Your task to perform on an android device: Open ESPN.com Image 0: 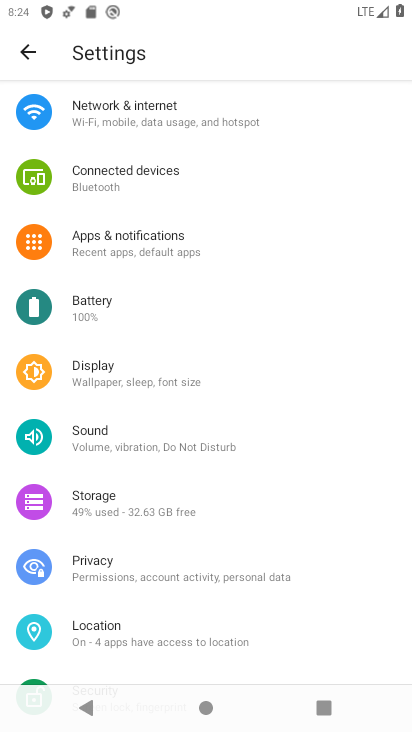
Step 0: press back button
Your task to perform on an android device: Open ESPN.com Image 1: 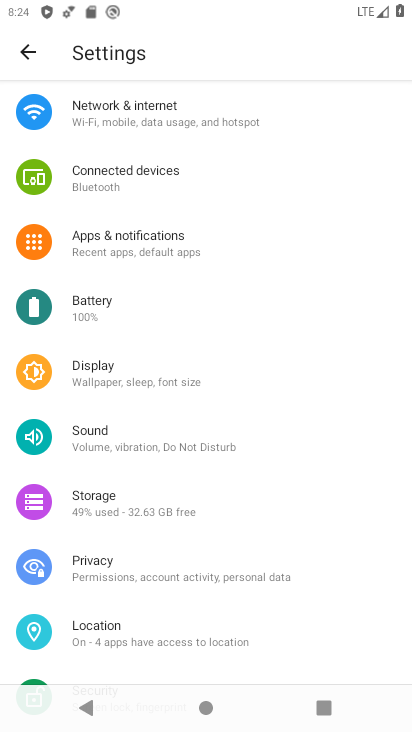
Step 1: press back button
Your task to perform on an android device: Open ESPN.com Image 2: 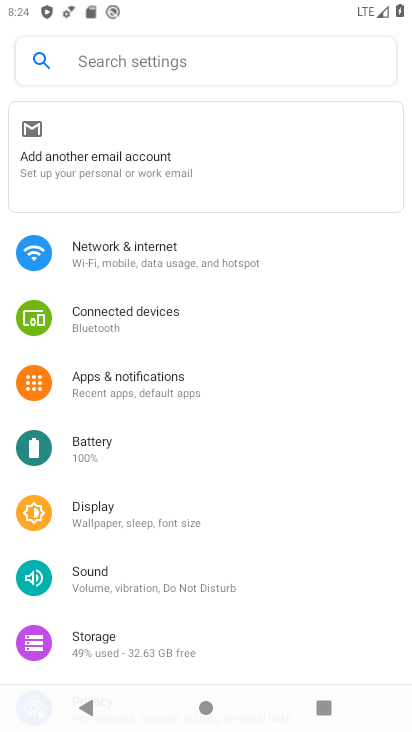
Step 2: press home button
Your task to perform on an android device: Open ESPN.com Image 3: 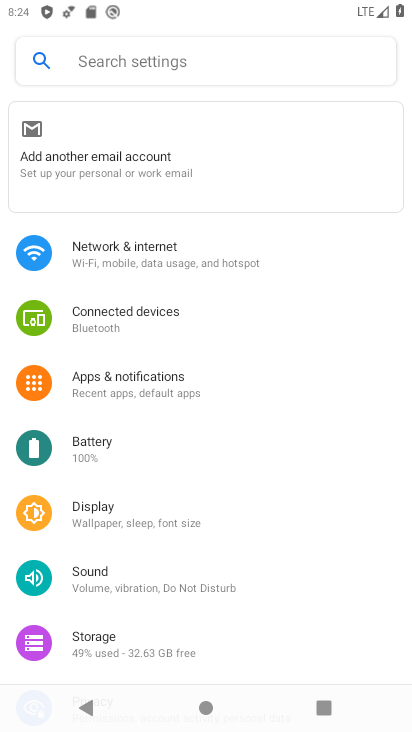
Step 3: press home button
Your task to perform on an android device: Open ESPN.com Image 4: 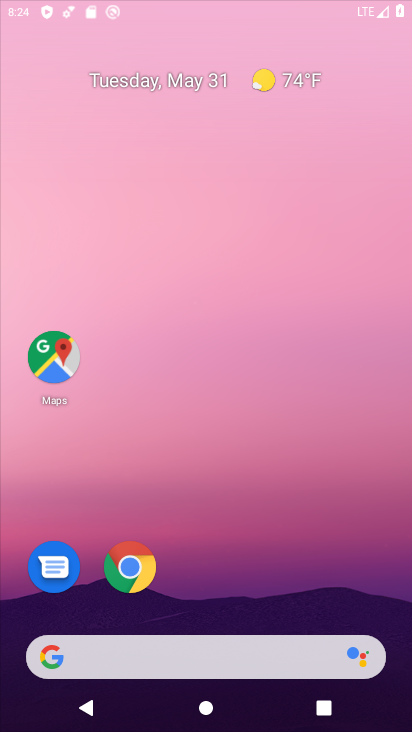
Step 4: press home button
Your task to perform on an android device: Open ESPN.com Image 5: 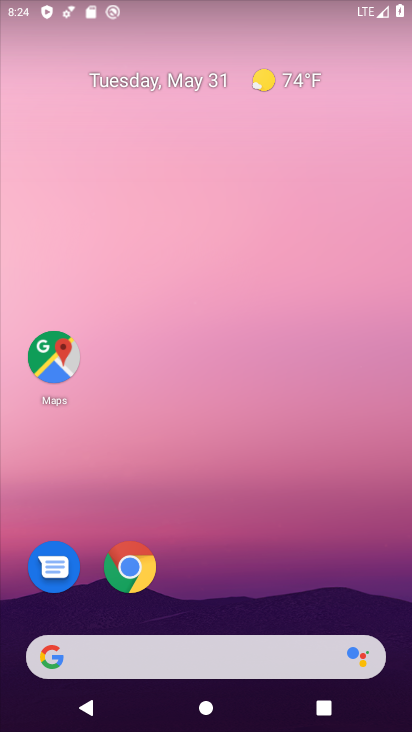
Step 5: drag from (272, 698) to (227, 55)
Your task to perform on an android device: Open ESPN.com Image 6: 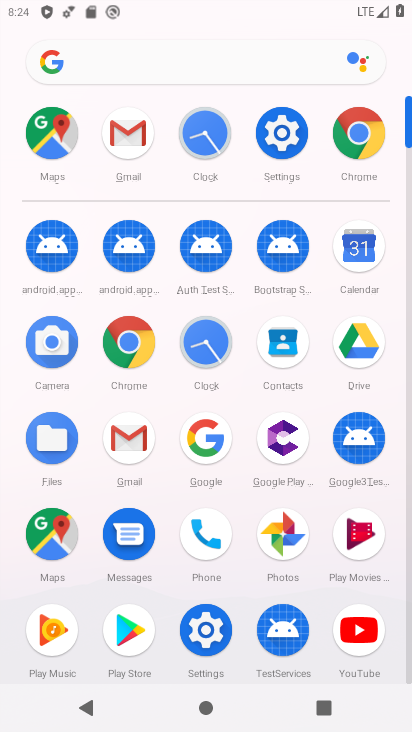
Step 6: click (357, 135)
Your task to perform on an android device: Open ESPN.com Image 7: 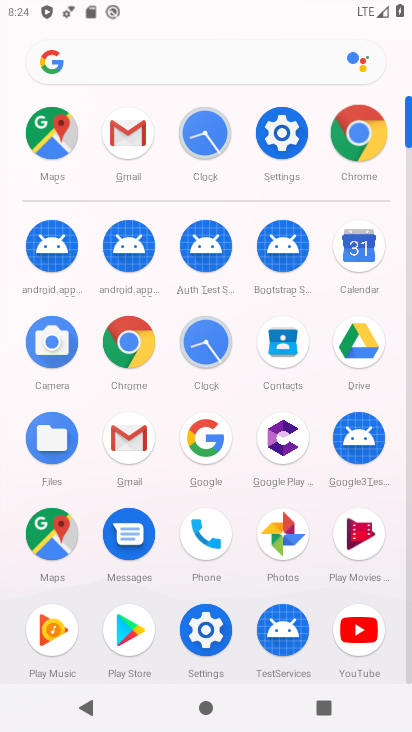
Step 7: click (358, 134)
Your task to perform on an android device: Open ESPN.com Image 8: 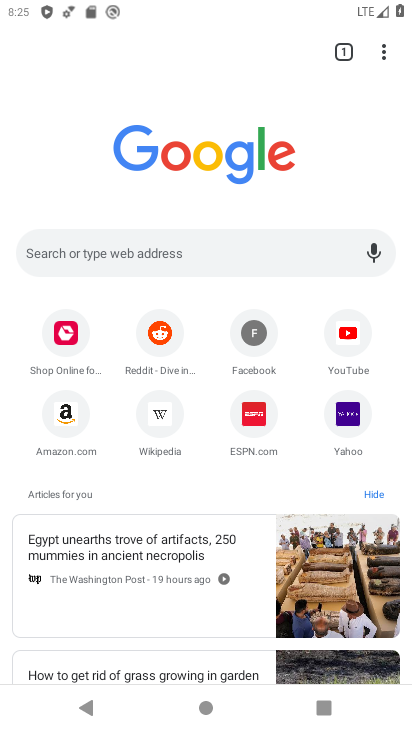
Step 8: click (260, 414)
Your task to perform on an android device: Open ESPN.com Image 9: 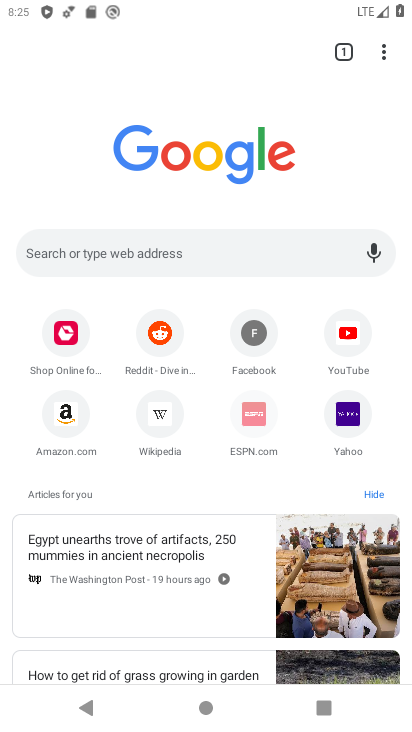
Step 9: click (263, 415)
Your task to perform on an android device: Open ESPN.com Image 10: 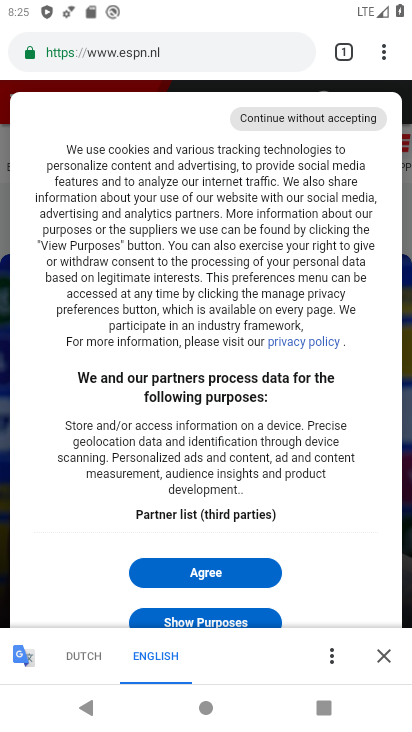
Step 10: press back button
Your task to perform on an android device: Open ESPN.com Image 11: 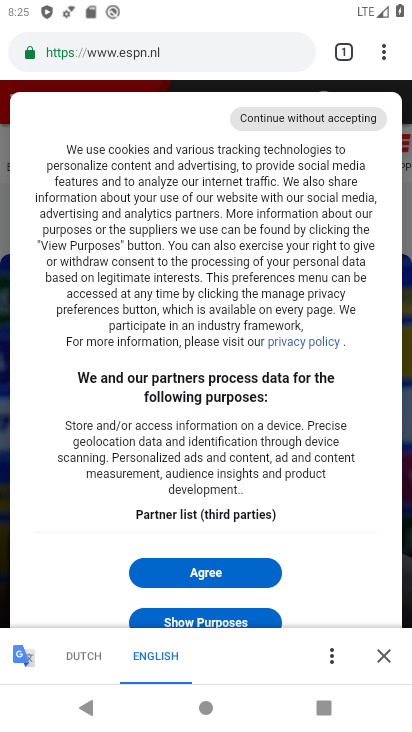
Step 11: press back button
Your task to perform on an android device: Open ESPN.com Image 12: 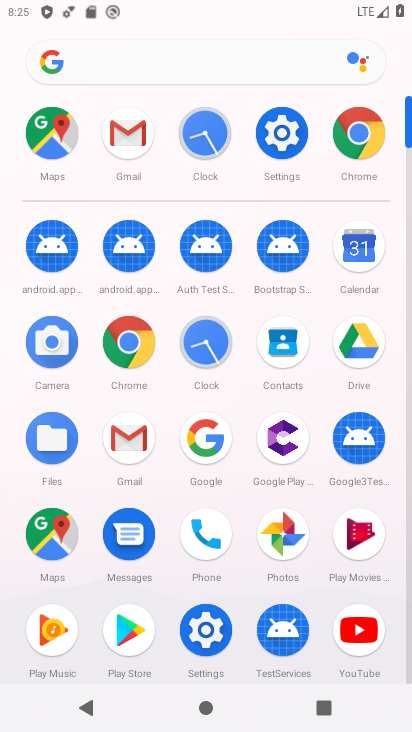
Step 12: click (357, 135)
Your task to perform on an android device: Open ESPN.com Image 13: 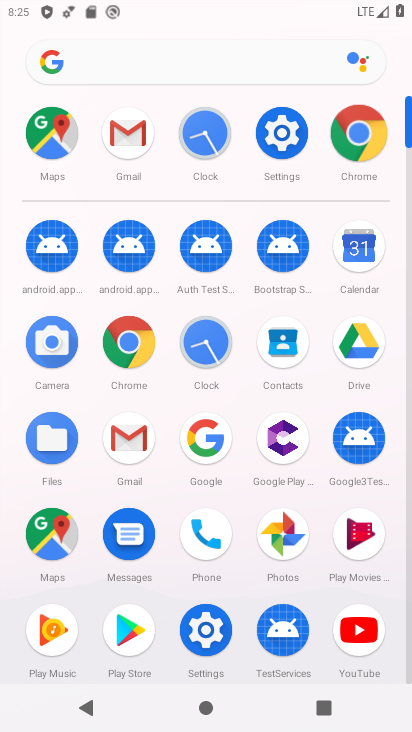
Step 13: click (358, 133)
Your task to perform on an android device: Open ESPN.com Image 14: 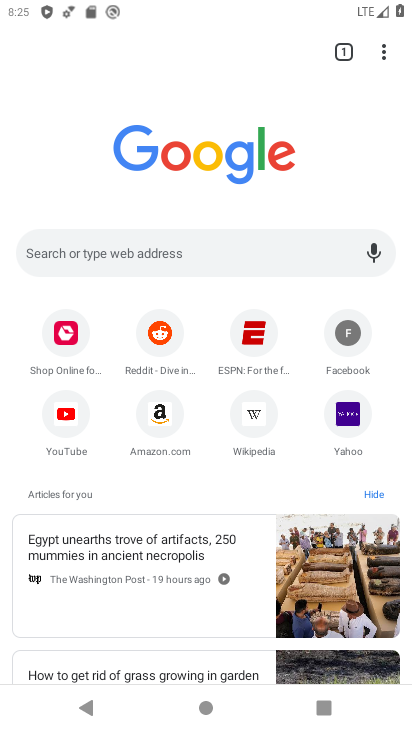
Step 14: click (253, 341)
Your task to perform on an android device: Open ESPN.com Image 15: 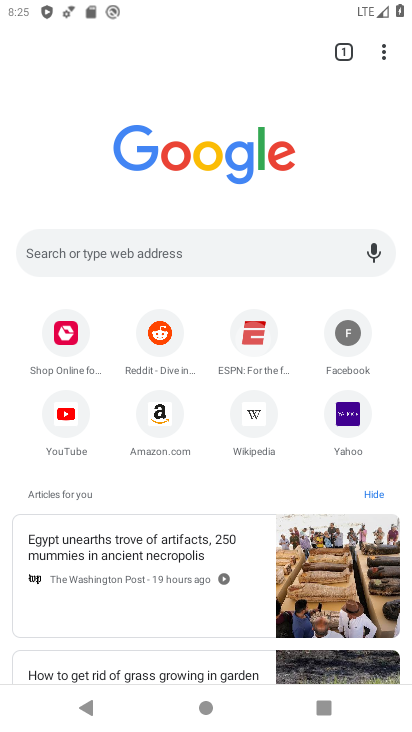
Step 15: task complete